Your task to perform on an android device: toggle wifi Image 0: 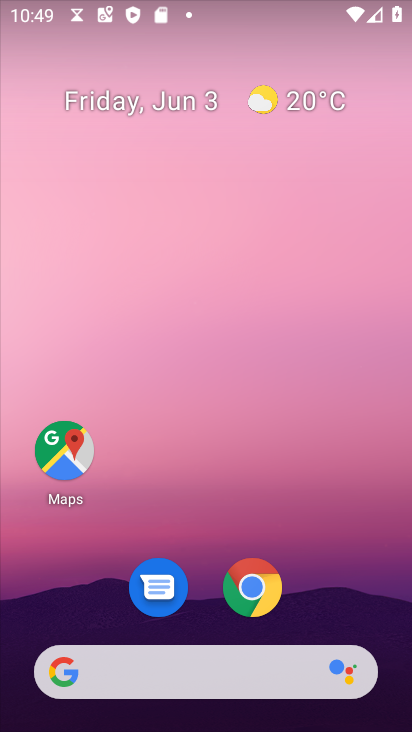
Step 0: drag from (359, 532) to (200, 13)
Your task to perform on an android device: toggle wifi Image 1: 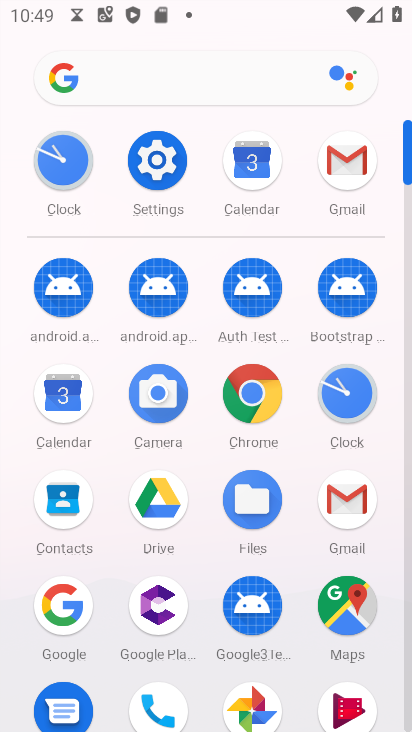
Step 1: click (158, 168)
Your task to perform on an android device: toggle wifi Image 2: 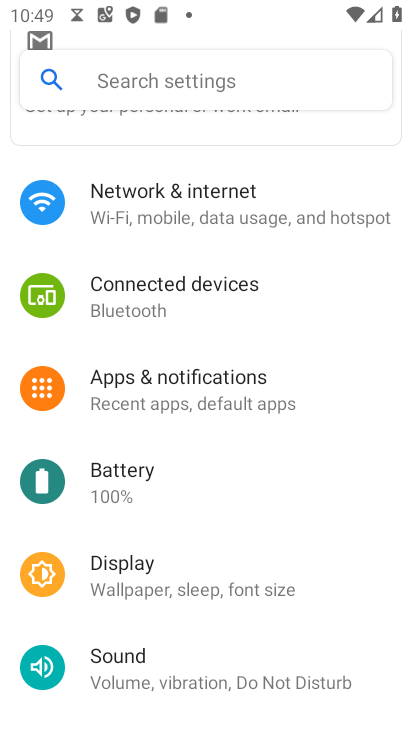
Step 2: click (254, 198)
Your task to perform on an android device: toggle wifi Image 3: 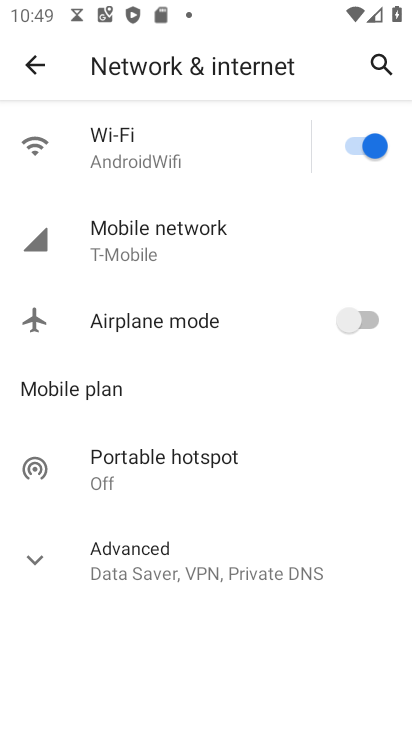
Step 3: click (358, 143)
Your task to perform on an android device: toggle wifi Image 4: 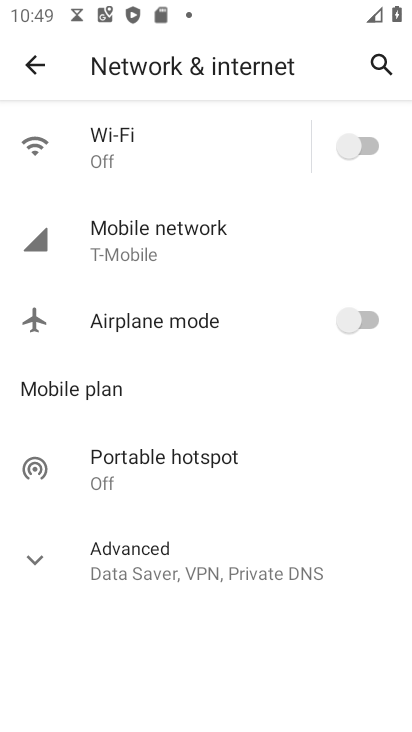
Step 4: task complete